Your task to perform on an android device: turn on priority inbox in the gmail app Image 0: 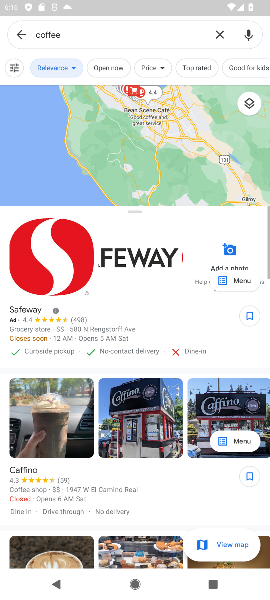
Step 0: press home button
Your task to perform on an android device: turn on priority inbox in the gmail app Image 1: 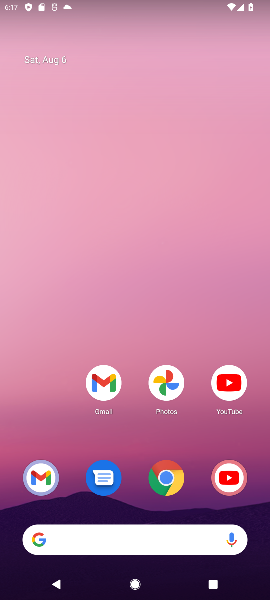
Step 1: click (43, 474)
Your task to perform on an android device: turn on priority inbox in the gmail app Image 2: 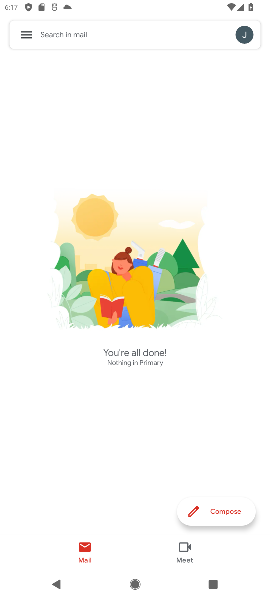
Step 2: click (29, 37)
Your task to perform on an android device: turn on priority inbox in the gmail app Image 3: 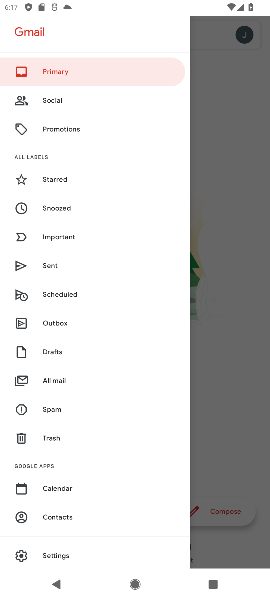
Step 3: click (49, 555)
Your task to perform on an android device: turn on priority inbox in the gmail app Image 4: 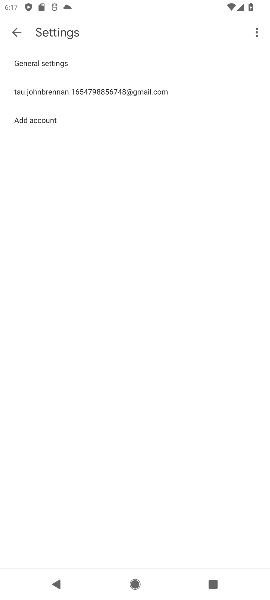
Step 4: click (102, 90)
Your task to perform on an android device: turn on priority inbox in the gmail app Image 5: 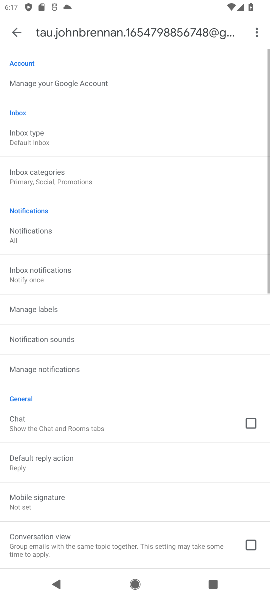
Step 5: click (37, 141)
Your task to perform on an android device: turn on priority inbox in the gmail app Image 6: 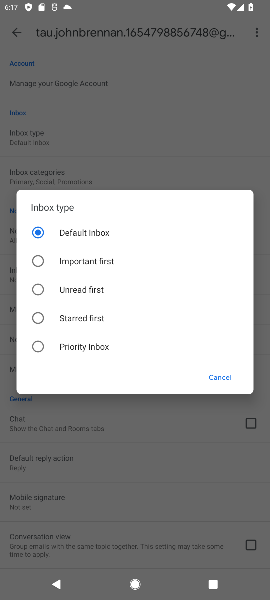
Step 6: click (44, 341)
Your task to perform on an android device: turn on priority inbox in the gmail app Image 7: 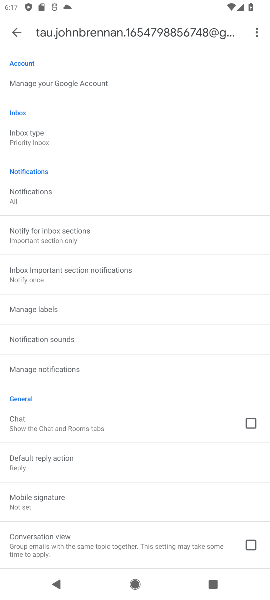
Step 7: task complete